Your task to perform on an android device: open a bookmark in the chrome app Image 0: 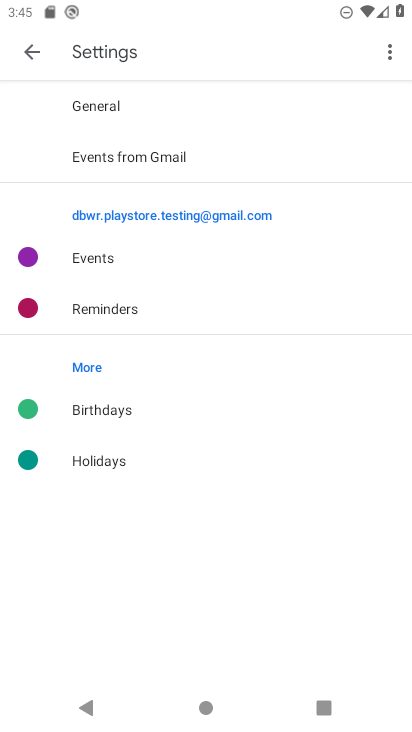
Step 0: press home button
Your task to perform on an android device: open a bookmark in the chrome app Image 1: 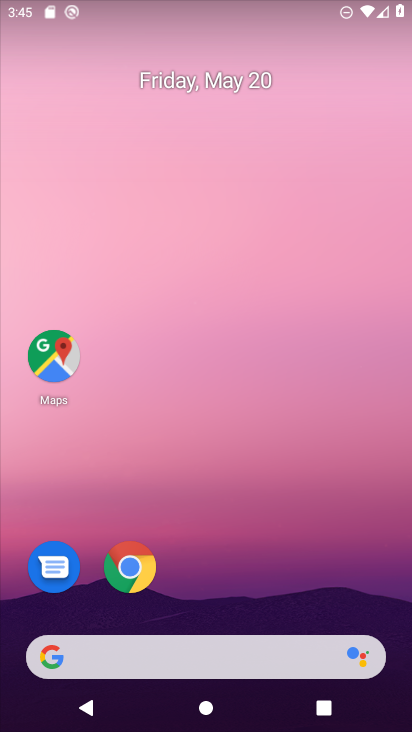
Step 1: click (134, 570)
Your task to perform on an android device: open a bookmark in the chrome app Image 2: 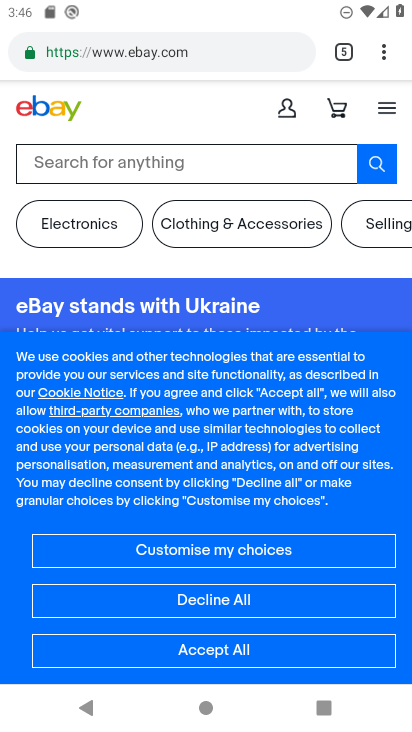
Step 2: click (386, 54)
Your task to perform on an android device: open a bookmark in the chrome app Image 3: 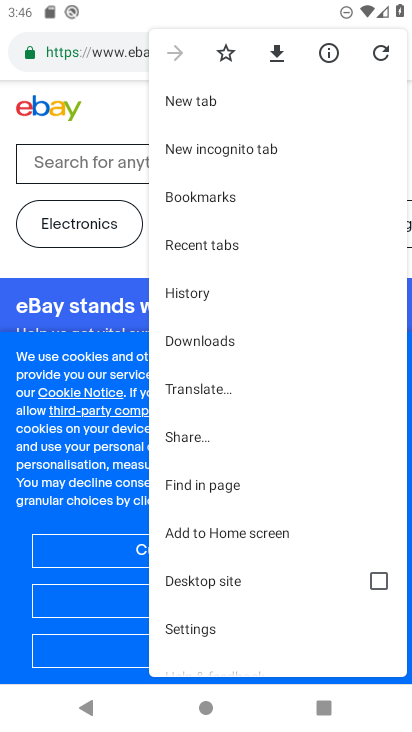
Step 3: click (207, 194)
Your task to perform on an android device: open a bookmark in the chrome app Image 4: 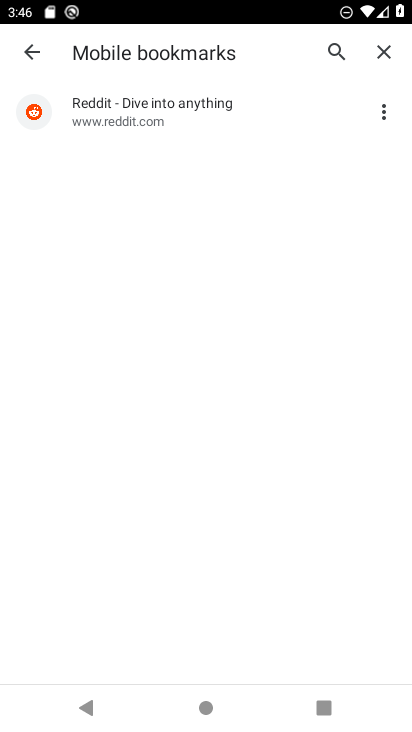
Step 4: click (163, 105)
Your task to perform on an android device: open a bookmark in the chrome app Image 5: 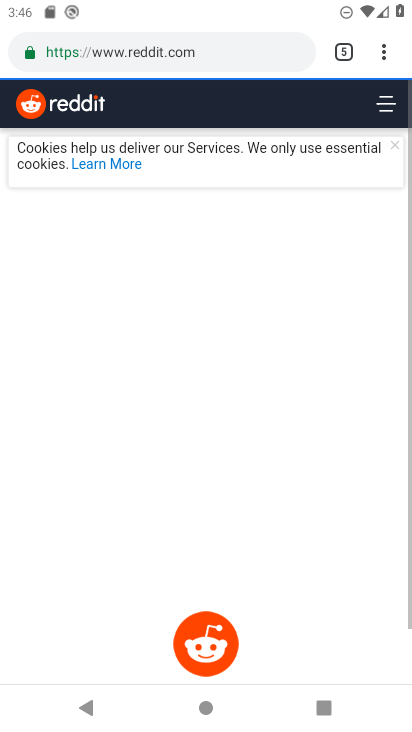
Step 5: task complete